Your task to perform on an android device: change the clock display to analog Image 0: 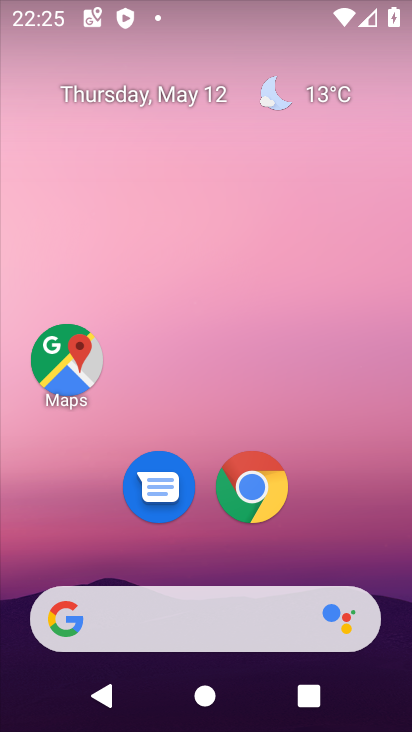
Step 0: drag from (239, 547) to (364, 111)
Your task to perform on an android device: change the clock display to analog Image 1: 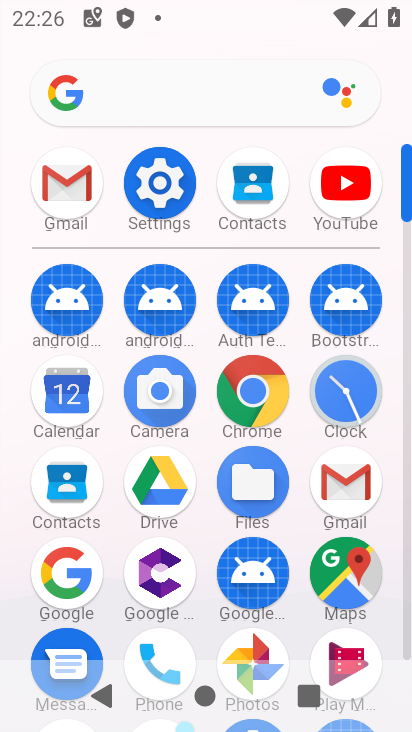
Step 1: click (344, 374)
Your task to perform on an android device: change the clock display to analog Image 2: 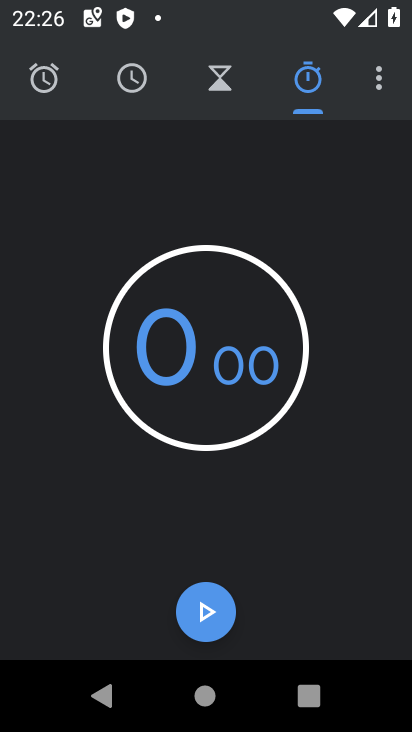
Step 2: click (388, 65)
Your task to perform on an android device: change the clock display to analog Image 3: 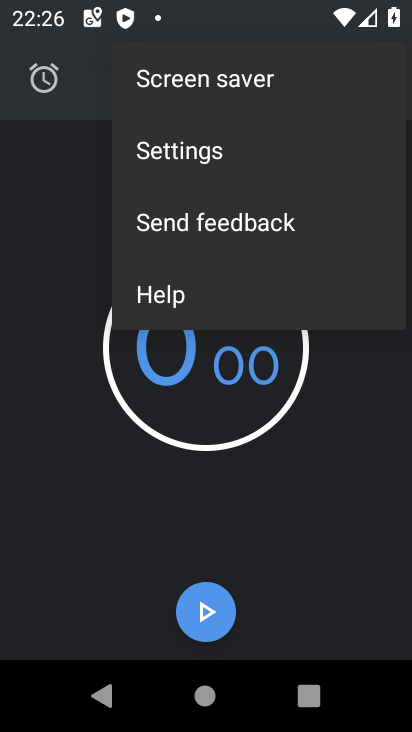
Step 3: click (235, 142)
Your task to perform on an android device: change the clock display to analog Image 4: 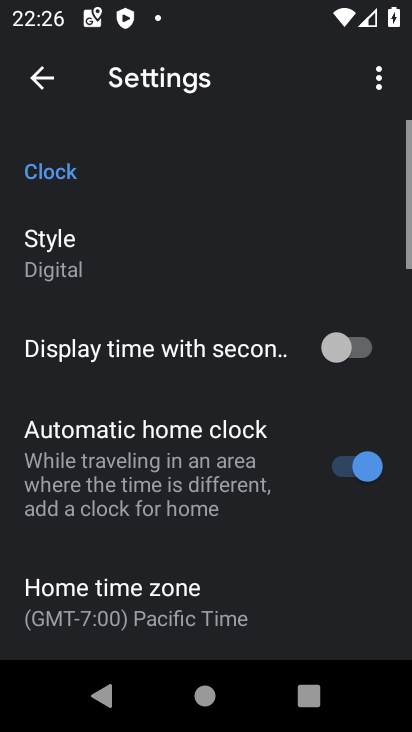
Step 4: click (196, 247)
Your task to perform on an android device: change the clock display to analog Image 5: 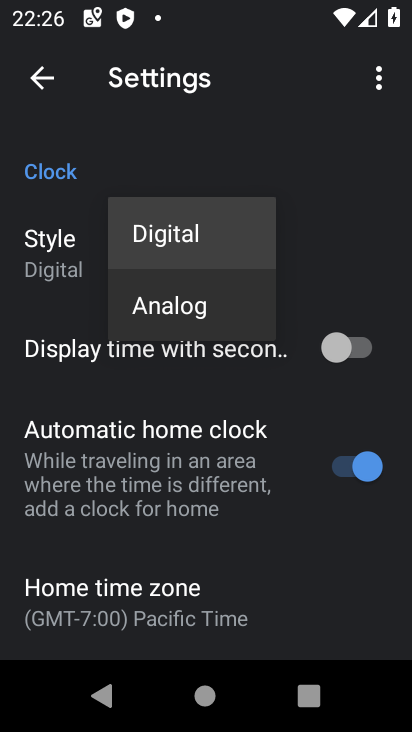
Step 5: click (235, 307)
Your task to perform on an android device: change the clock display to analog Image 6: 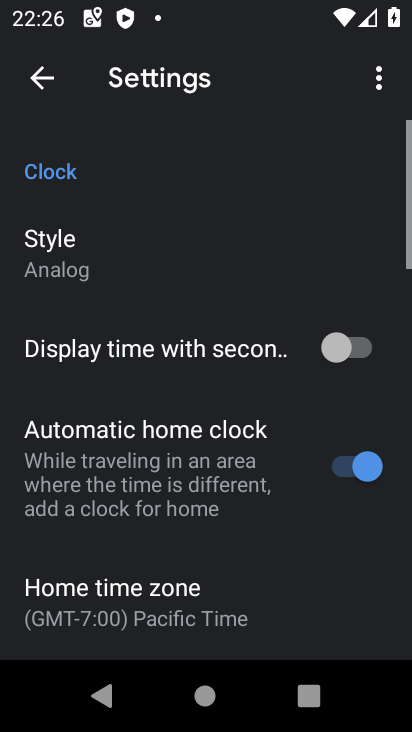
Step 6: task complete